Your task to perform on an android device: Open Google Maps and go to "Timeline" Image 0: 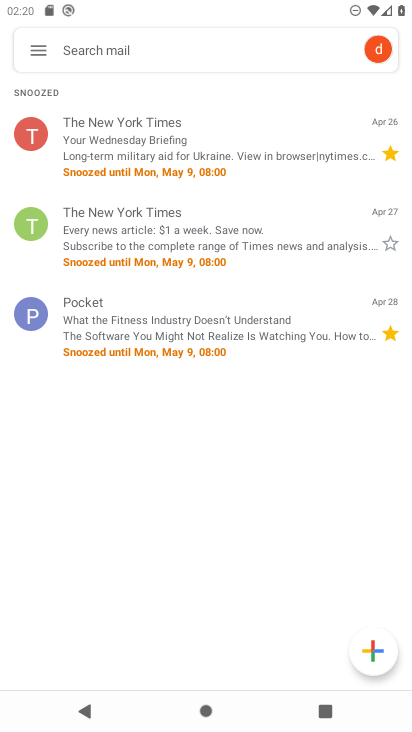
Step 0: press home button
Your task to perform on an android device: Open Google Maps and go to "Timeline" Image 1: 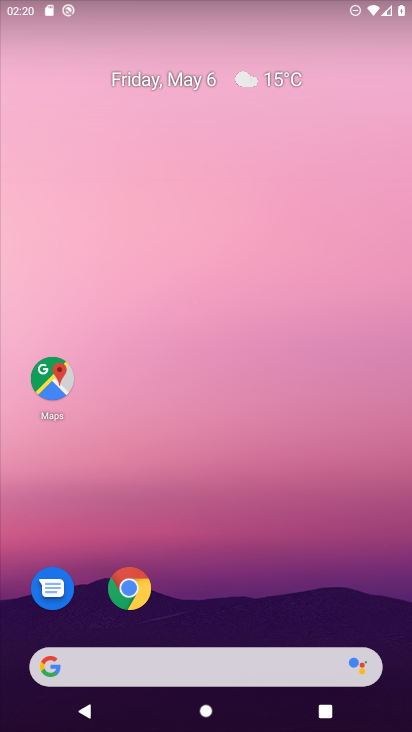
Step 1: click (47, 377)
Your task to perform on an android device: Open Google Maps and go to "Timeline" Image 2: 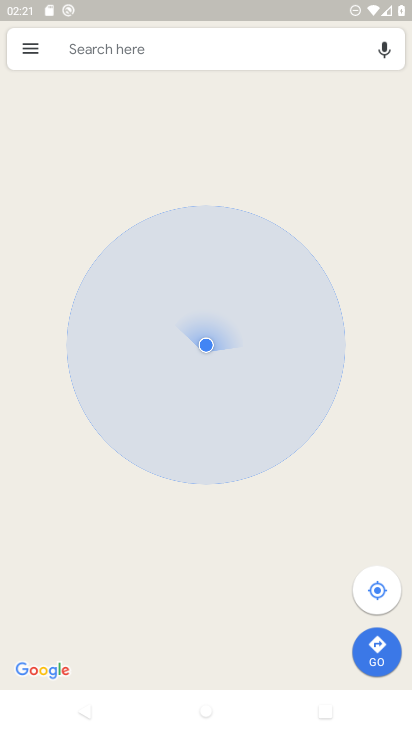
Step 2: click (35, 45)
Your task to perform on an android device: Open Google Maps and go to "Timeline" Image 3: 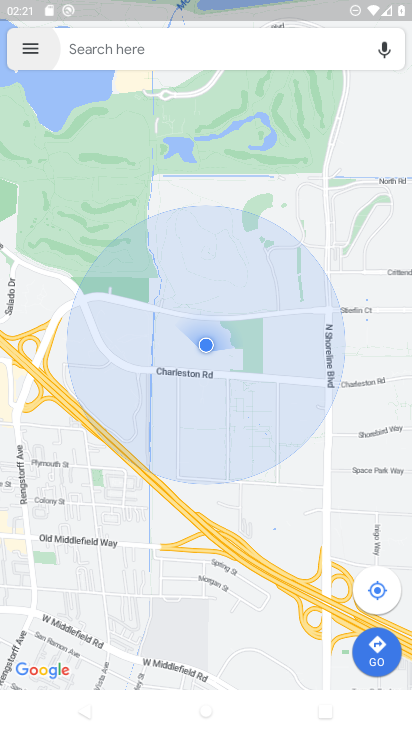
Step 3: click (30, 45)
Your task to perform on an android device: Open Google Maps and go to "Timeline" Image 4: 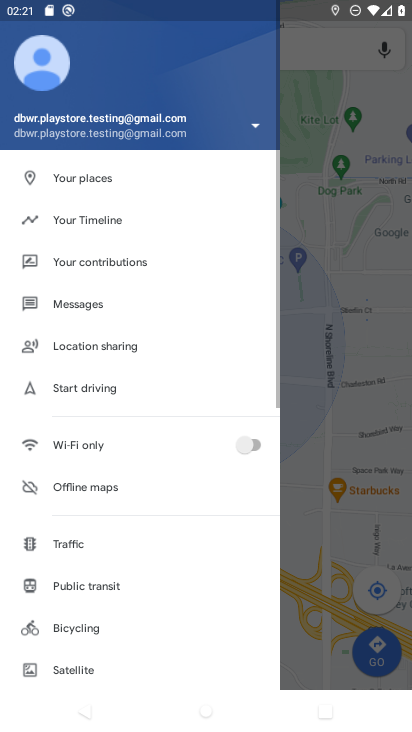
Step 4: click (107, 226)
Your task to perform on an android device: Open Google Maps and go to "Timeline" Image 5: 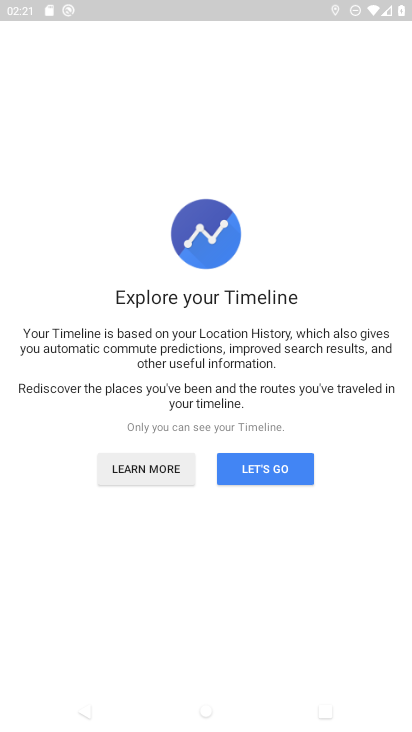
Step 5: click (292, 466)
Your task to perform on an android device: Open Google Maps and go to "Timeline" Image 6: 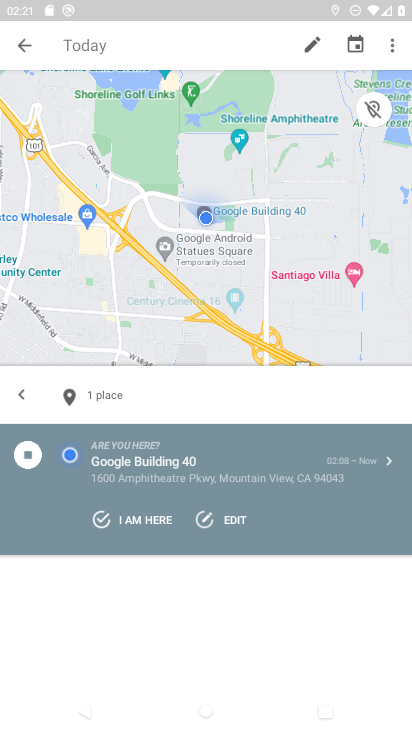
Step 6: task complete